Your task to perform on an android device: Turn on the flashlight Image 0: 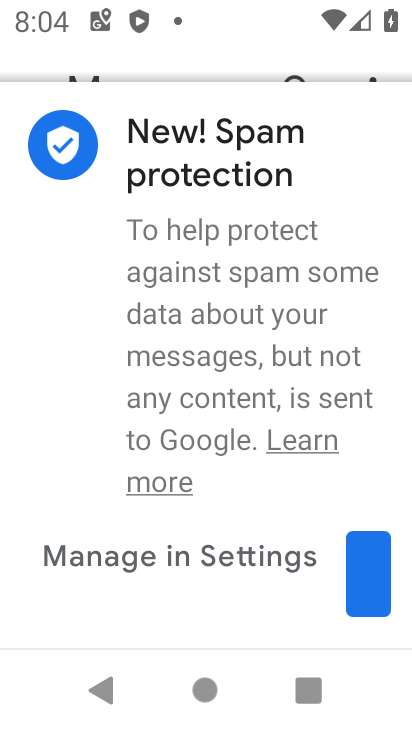
Step 0: press home button
Your task to perform on an android device: Turn on the flashlight Image 1: 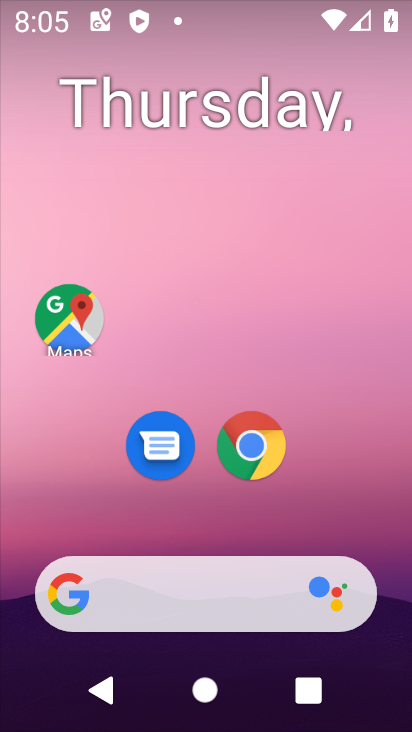
Step 1: drag from (337, 148) to (303, 32)
Your task to perform on an android device: Turn on the flashlight Image 2: 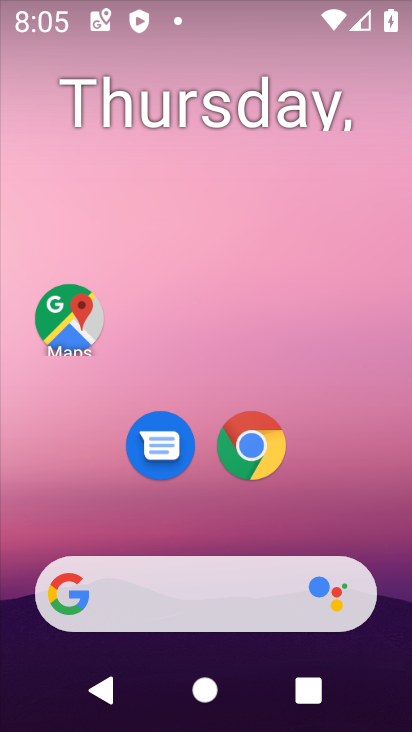
Step 2: drag from (393, 638) to (308, 55)
Your task to perform on an android device: Turn on the flashlight Image 3: 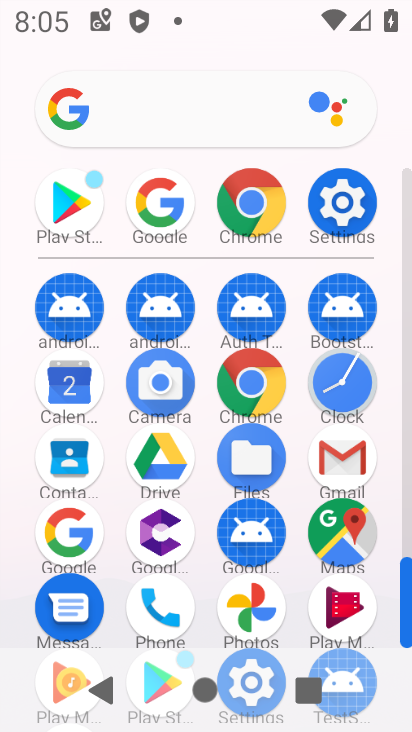
Step 3: click (348, 200)
Your task to perform on an android device: Turn on the flashlight Image 4: 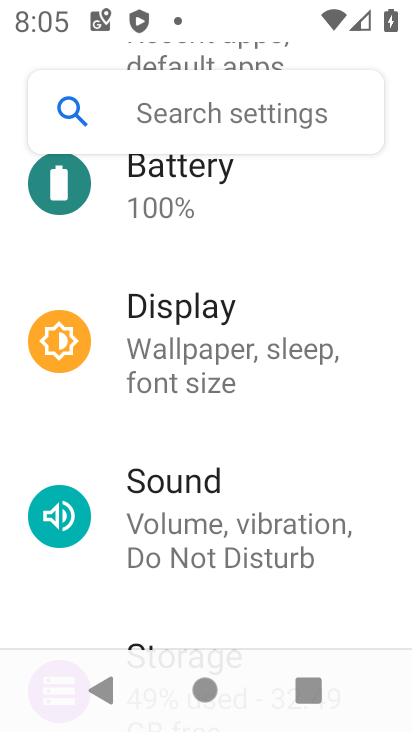
Step 4: task complete